Your task to perform on an android device: turn off wifi Image 0: 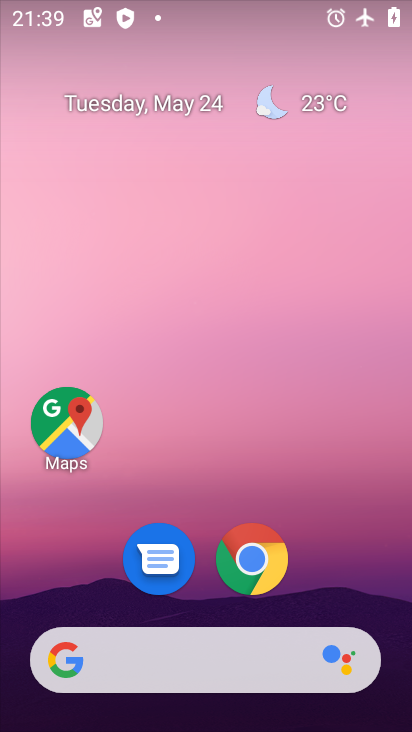
Step 0: drag from (334, 539) to (313, 146)
Your task to perform on an android device: turn off wifi Image 1: 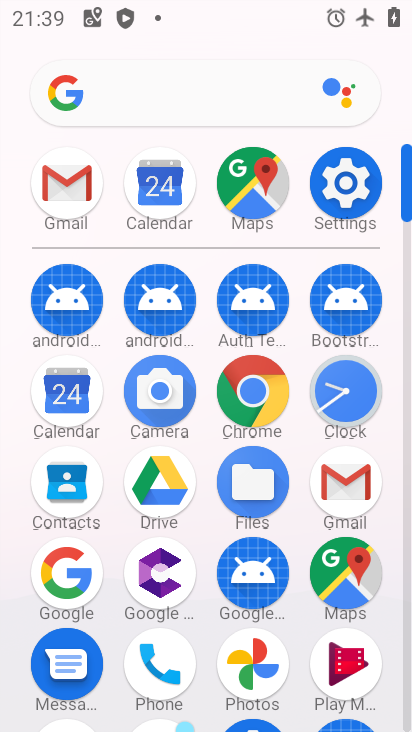
Step 1: click (335, 171)
Your task to perform on an android device: turn off wifi Image 2: 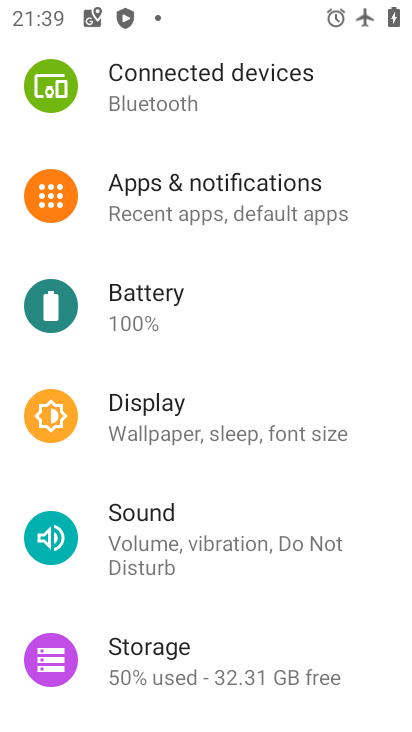
Step 2: drag from (291, 151) to (275, 549)
Your task to perform on an android device: turn off wifi Image 3: 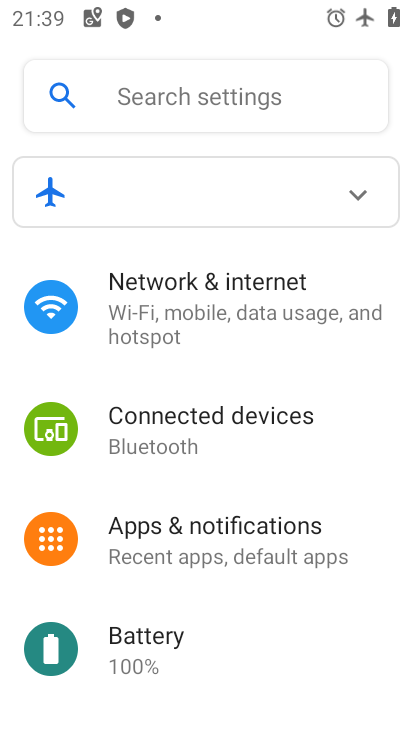
Step 3: click (260, 296)
Your task to perform on an android device: turn off wifi Image 4: 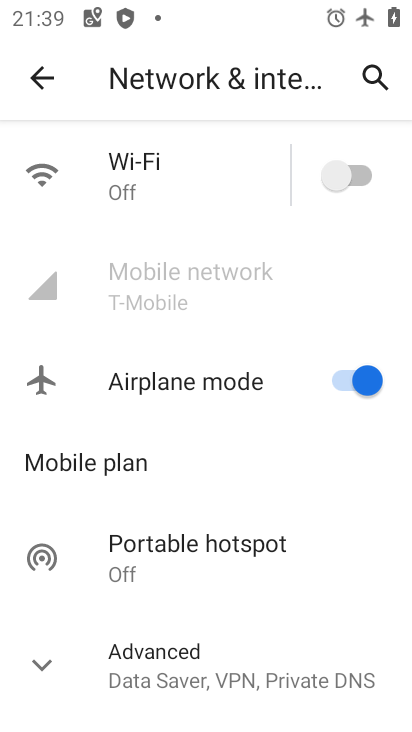
Step 4: task complete